Your task to perform on an android device: What's the weather? Image 0: 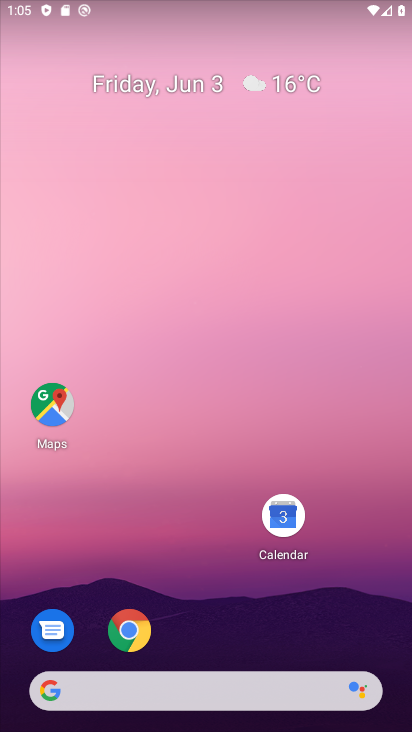
Step 0: drag from (233, 717) to (129, 62)
Your task to perform on an android device: What's the weather? Image 1: 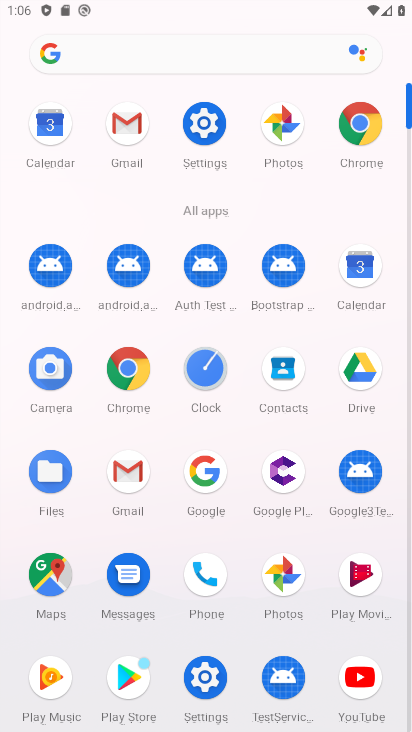
Step 1: click (152, 58)
Your task to perform on an android device: What's the weather? Image 2: 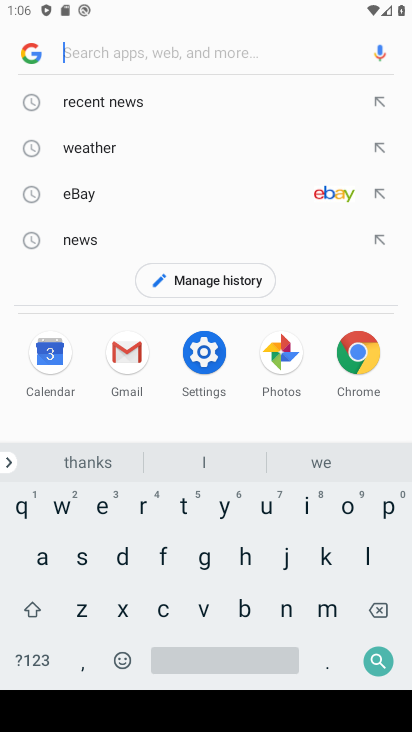
Step 2: click (100, 144)
Your task to perform on an android device: What's the weather? Image 3: 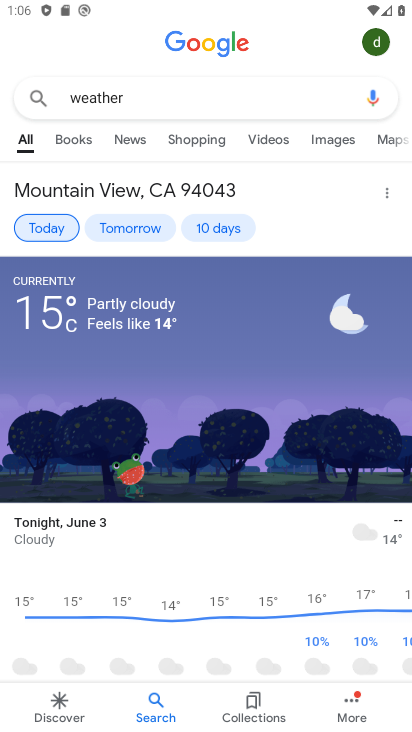
Step 3: task complete